Your task to perform on an android device: turn on sleep mode Image 0: 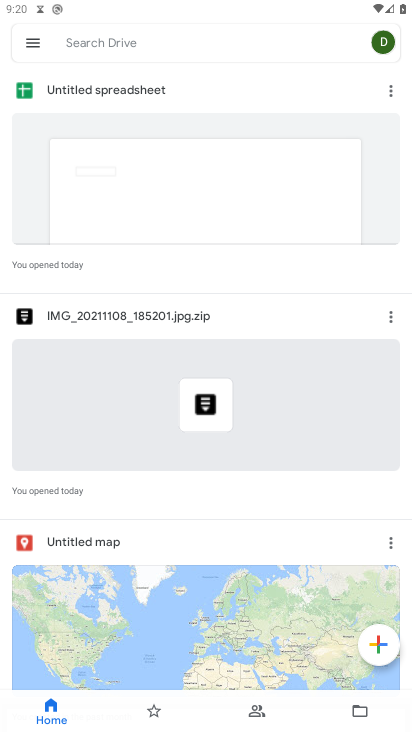
Step 0: press home button
Your task to perform on an android device: turn on sleep mode Image 1: 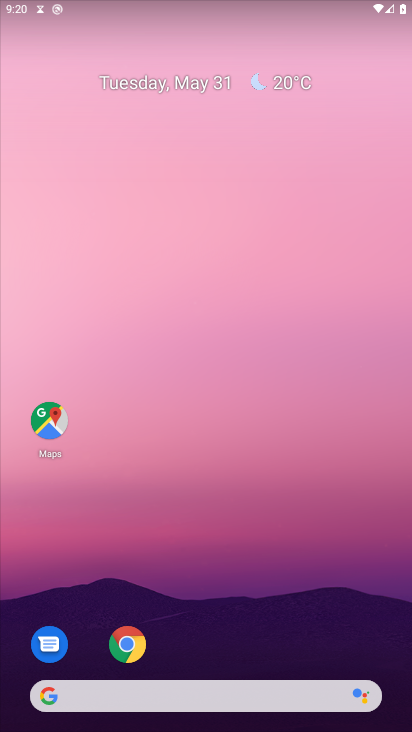
Step 1: drag from (221, 660) to (211, 89)
Your task to perform on an android device: turn on sleep mode Image 2: 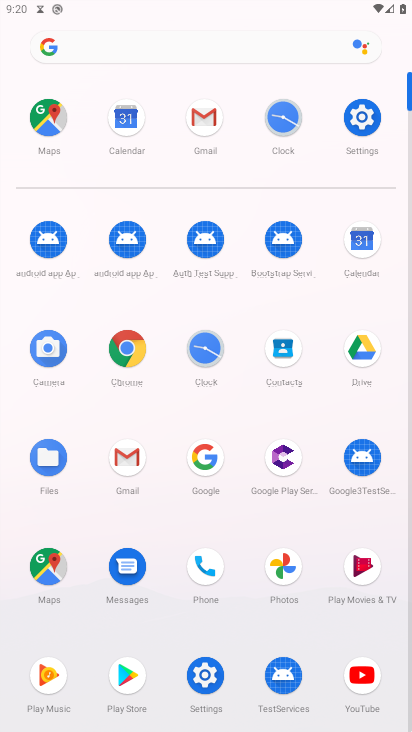
Step 2: click (358, 110)
Your task to perform on an android device: turn on sleep mode Image 3: 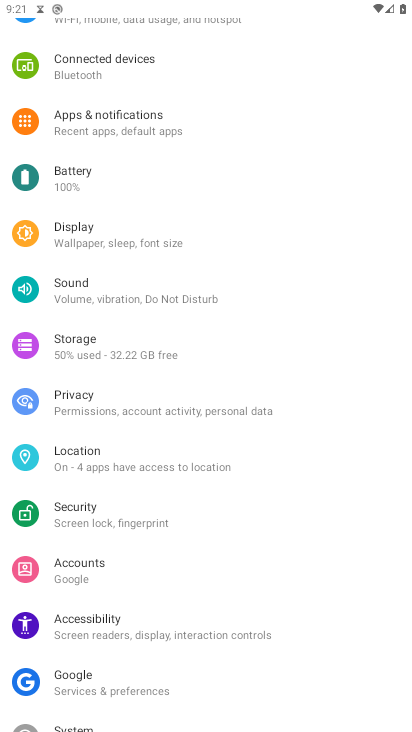
Step 3: click (99, 229)
Your task to perform on an android device: turn on sleep mode Image 4: 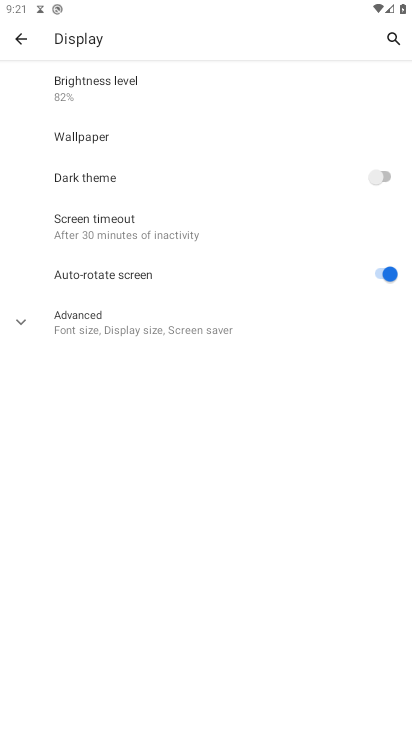
Step 4: click (58, 315)
Your task to perform on an android device: turn on sleep mode Image 5: 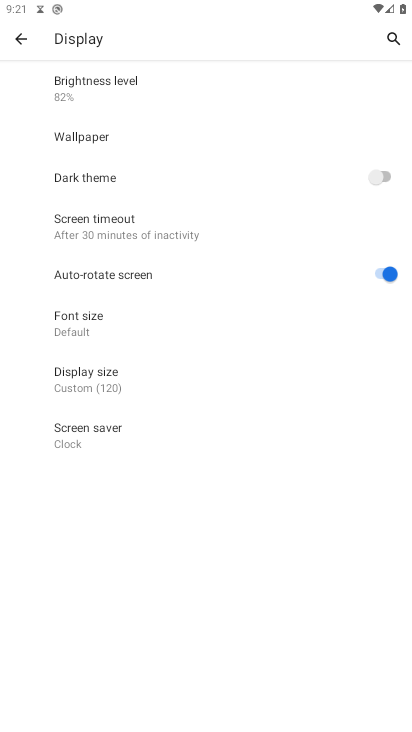
Step 5: task complete